Your task to perform on an android device: turn off smart reply in the gmail app Image 0: 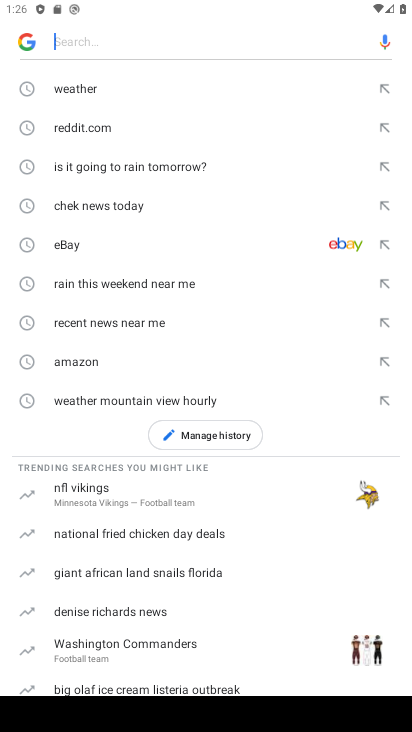
Step 0: press home button
Your task to perform on an android device: turn off smart reply in the gmail app Image 1: 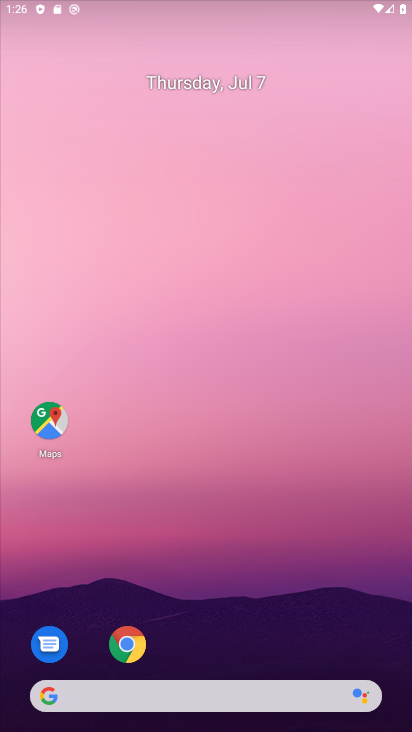
Step 1: drag from (214, 584) to (225, 206)
Your task to perform on an android device: turn off smart reply in the gmail app Image 2: 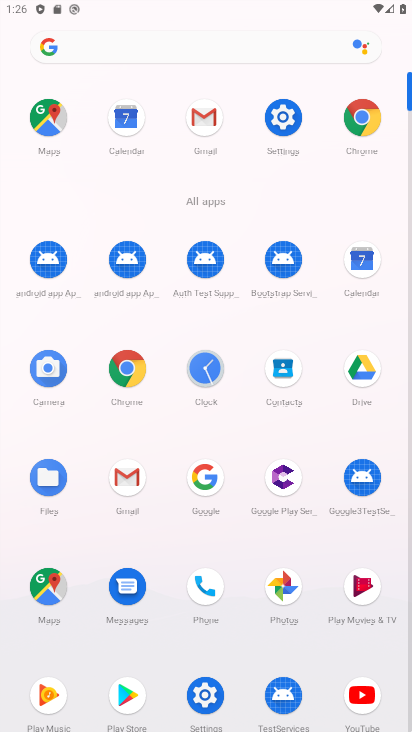
Step 2: click (202, 118)
Your task to perform on an android device: turn off smart reply in the gmail app Image 3: 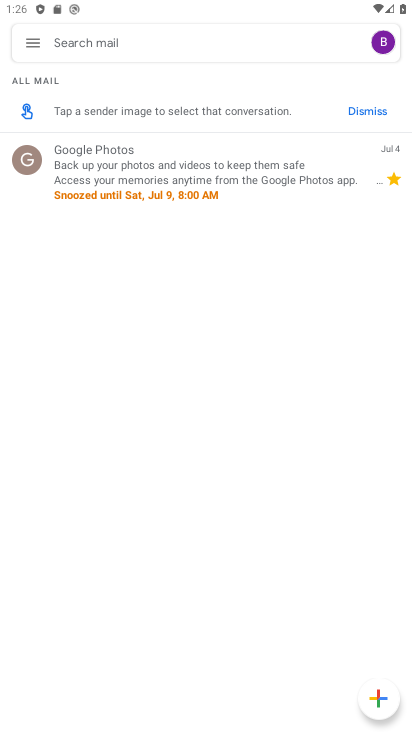
Step 3: click (30, 43)
Your task to perform on an android device: turn off smart reply in the gmail app Image 4: 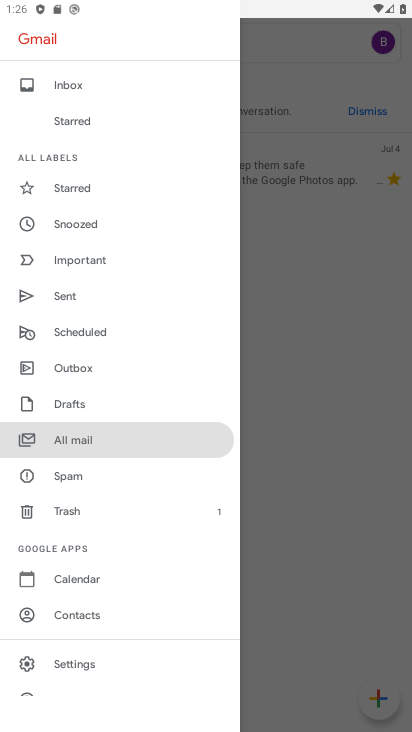
Step 4: drag from (77, 575) to (88, 480)
Your task to perform on an android device: turn off smart reply in the gmail app Image 5: 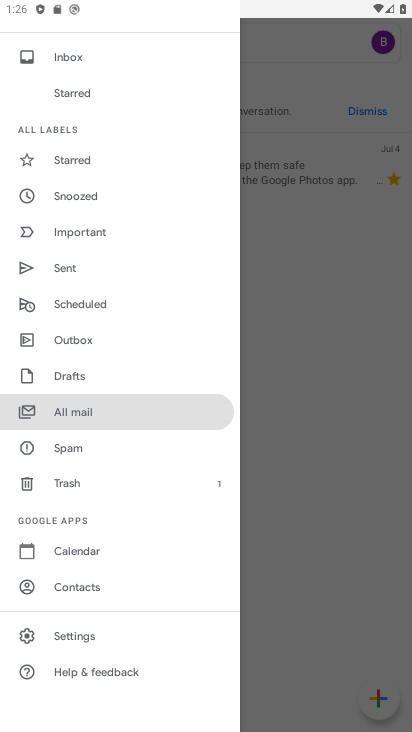
Step 5: click (96, 632)
Your task to perform on an android device: turn off smart reply in the gmail app Image 6: 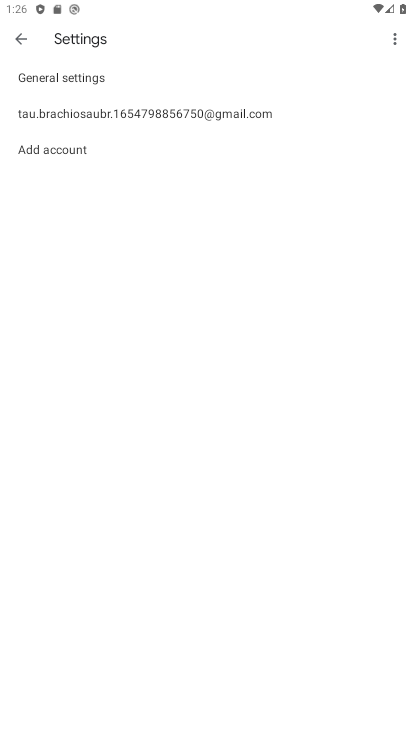
Step 6: click (179, 110)
Your task to perform on an android device: turn off smart reply in the gmail app Image 7: 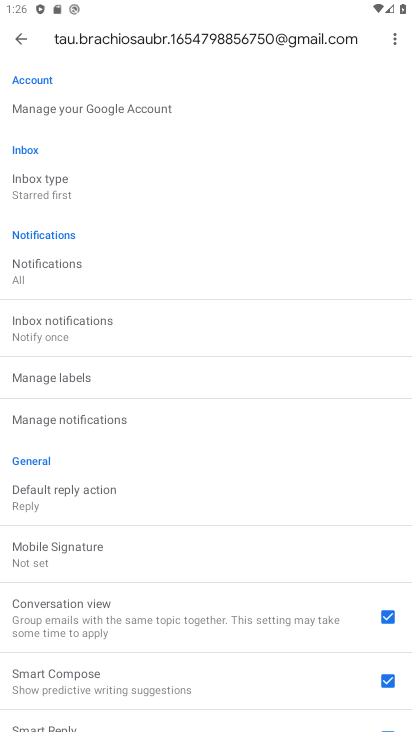
Step 7: drag from (123, 550) to (153, 477)
Your task to perform on an android device: turn off smart reply in the gmail app Image 8: 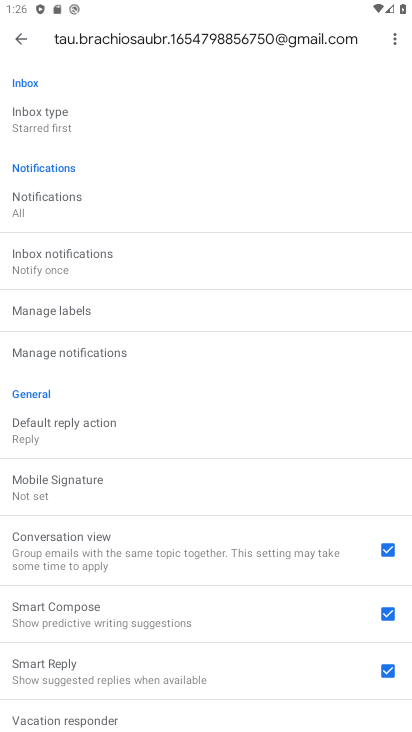
Step 8: drag from (118, 643) to (125, 434)
Your task to perform on an android device: turn off smart reply in the gmail app Image 9: 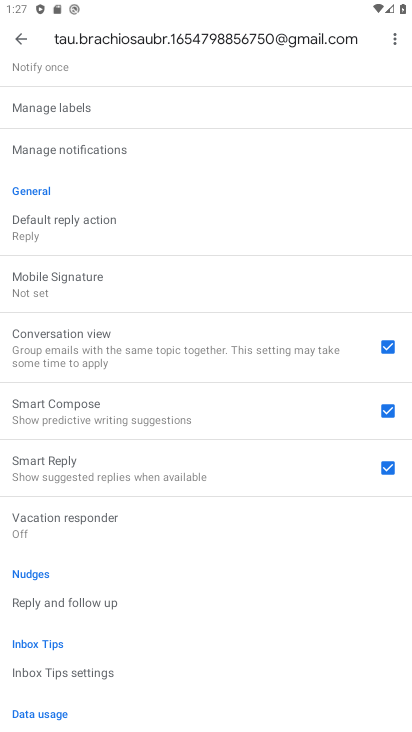
Step 9: click (382, 469)
Your task to perform on an android device: turn off smart reply in the gmail app Image 10: 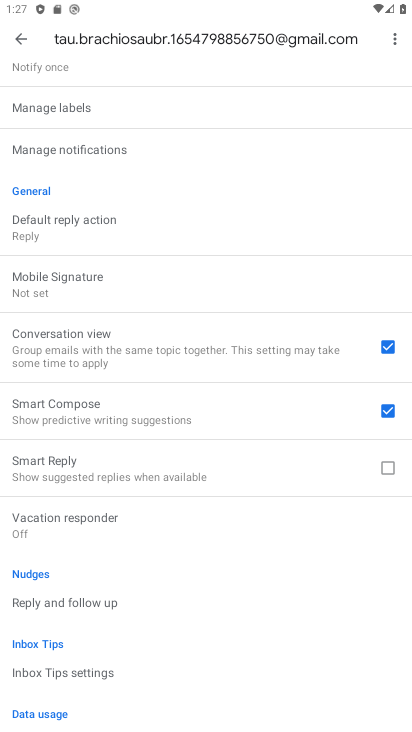
Step 10: task complete